Your task to perform on an android device: Open notification settings Image 0: 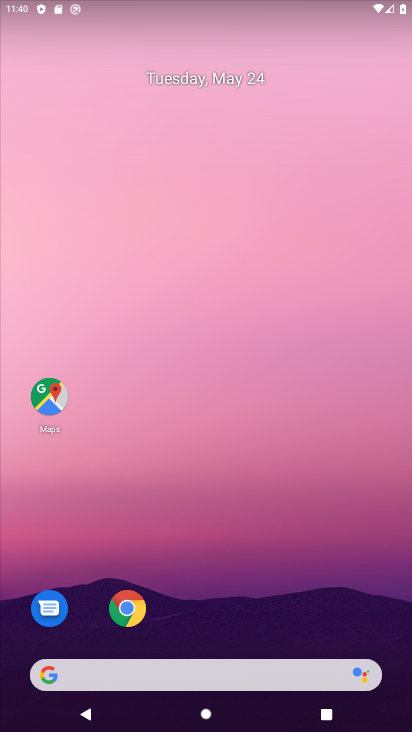
Step 0: drag from (173, 649) to (228, 229)
Your task to perform on an android device: Open notification settings Image 1: 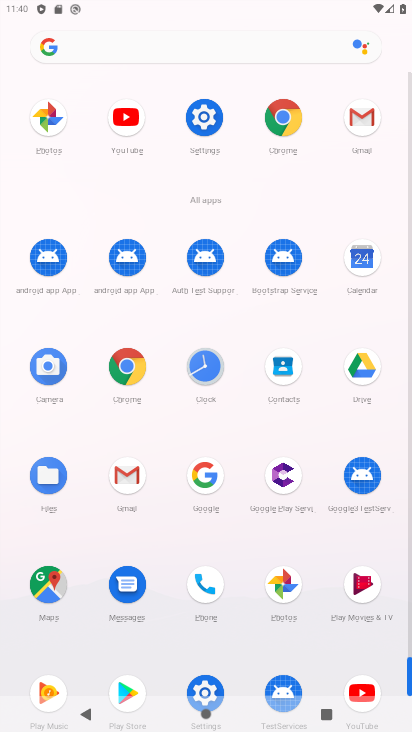
Step 1: click (199, 685)
Your task to perform on an android device: Open notification settings Image 2: 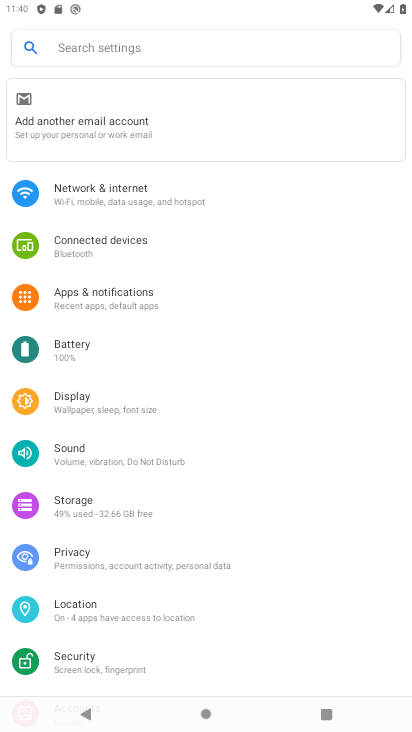
Step 2: click (183, 299)
Your task to perform on an android device: Open notification settings Image 3: 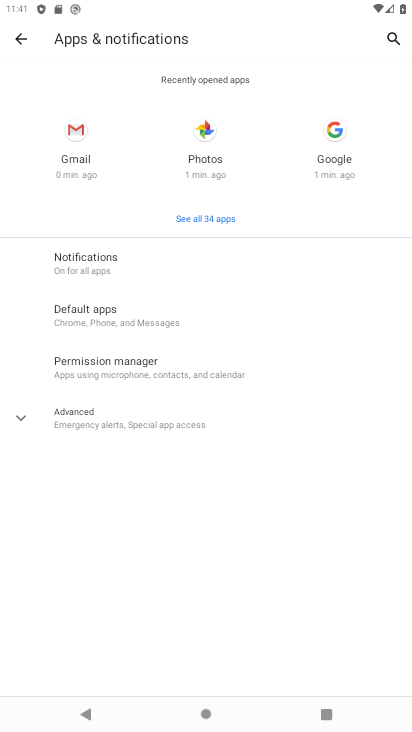
Step 3: click (187, 270)
Your task to perform on an android device: Open notification settings Image 4: 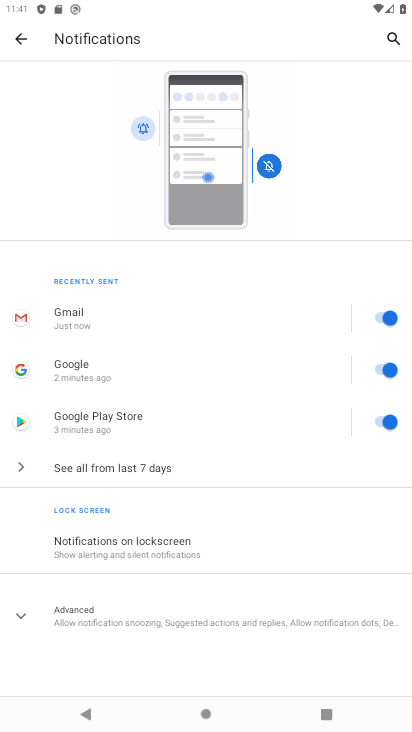
Step 4: task complete